Your task to perform on an android device: Go to Yahoo.com Image 0: 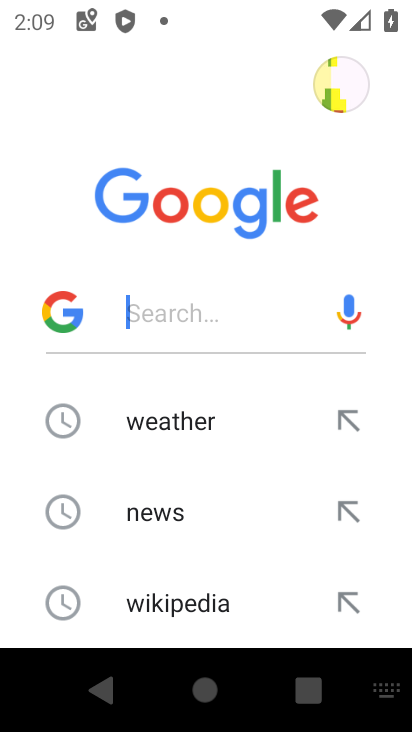
Step 0: drag from (196, 524) to (211, 180)
Your task to perform on an android device: Go to Yahoo.com Image 1: 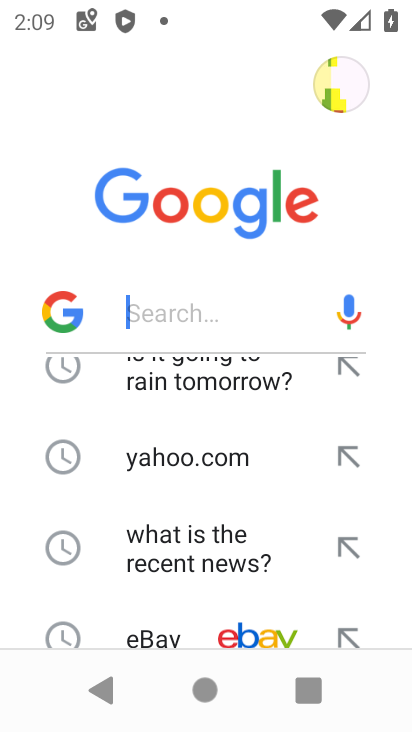
Step 1: drag from (224, 550) to (205, 263)
Your task to perform on an android device: Go to Yahoo.com Image 2: 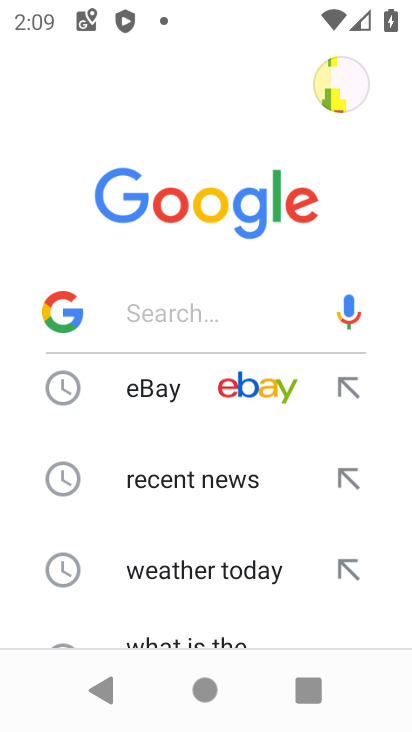
Step 2: drag from (212, 427) to (227, 578)
Your task to perform on an android device: Go to Yahoo.com Image 3: 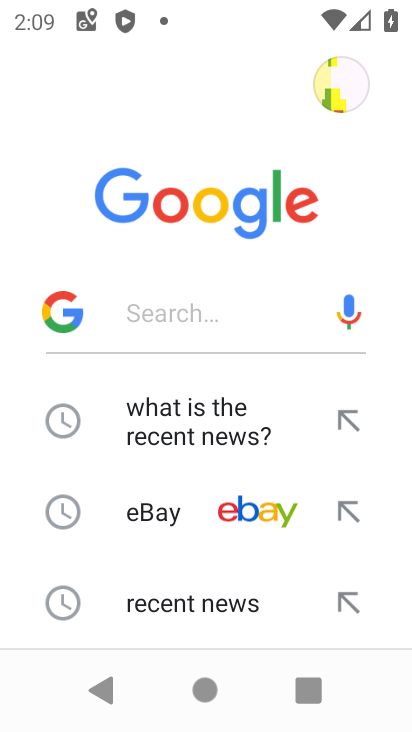
Step 3: drag from (180, 407) to (219, 552)
Your task to perform on an android device: Go to Yahoo.com Image 4: 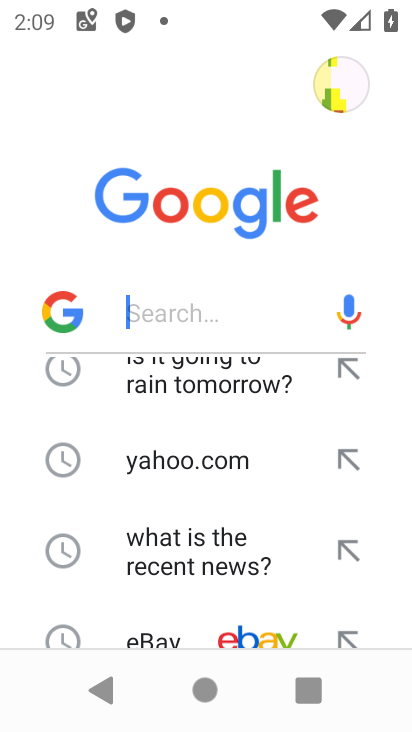
Step 4: click (190, 467)
Your task to perform on an android device: Go to Yahoo.com Image 5: 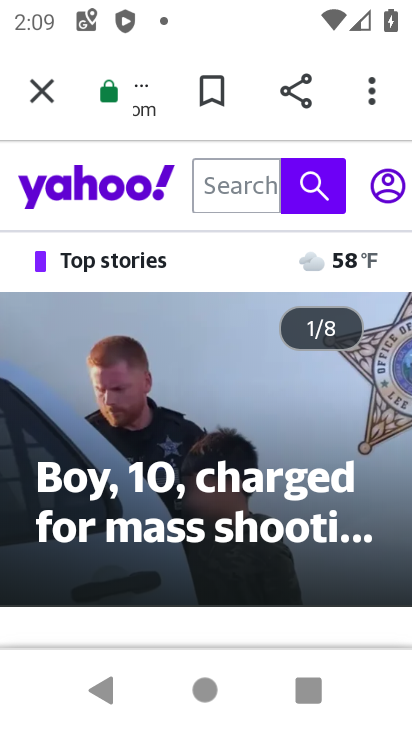
Step 5: task complete